Your task to perform on an android device: Turn off the flashlight Image 0: 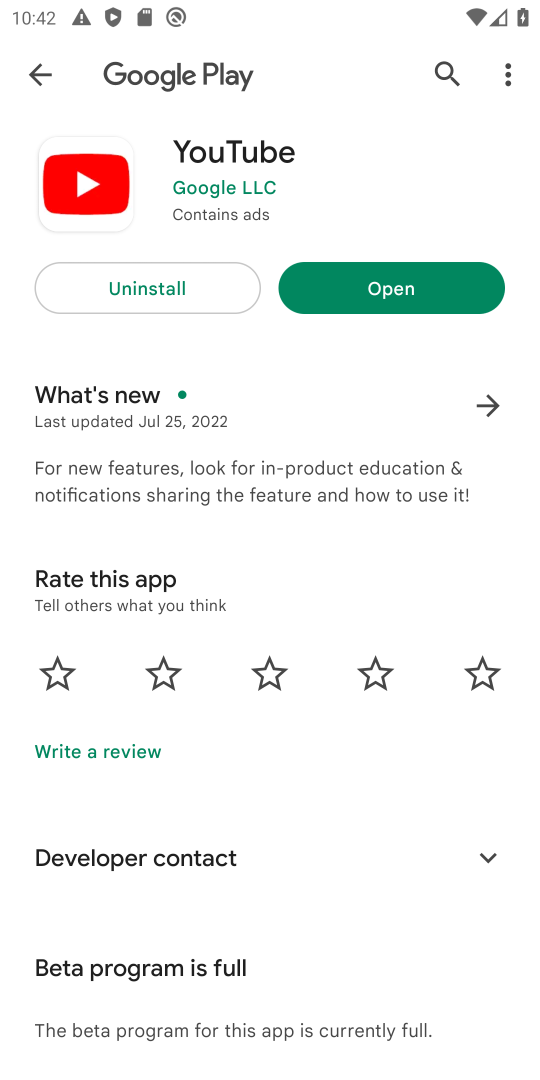
Step 0: press home button
Your task to perform on an android device: Turn off the flashlight Image 1: 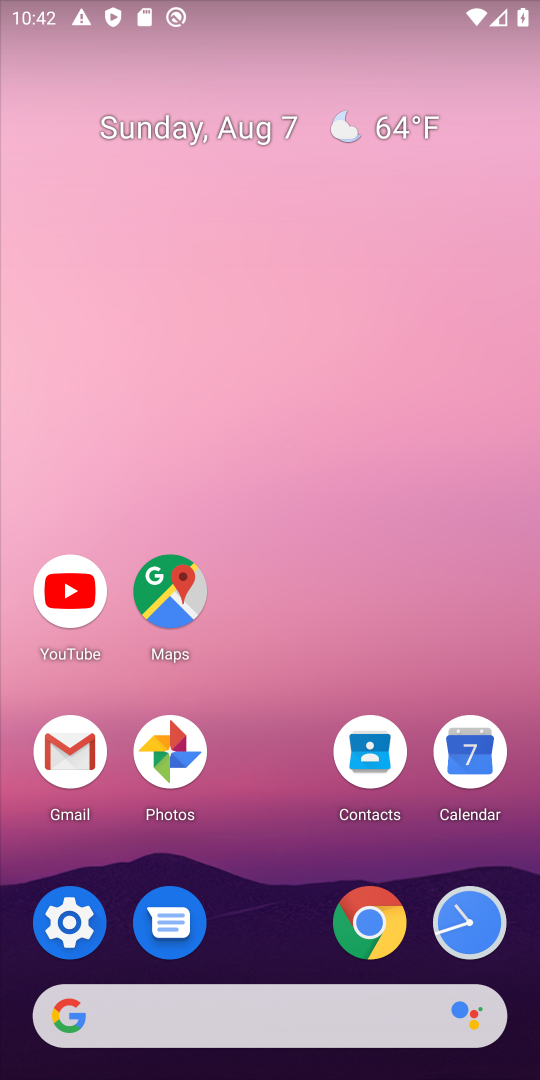
Step 1: click (72, 920)
Your task to perform on an android device: Turn off the flashlight Image 2: 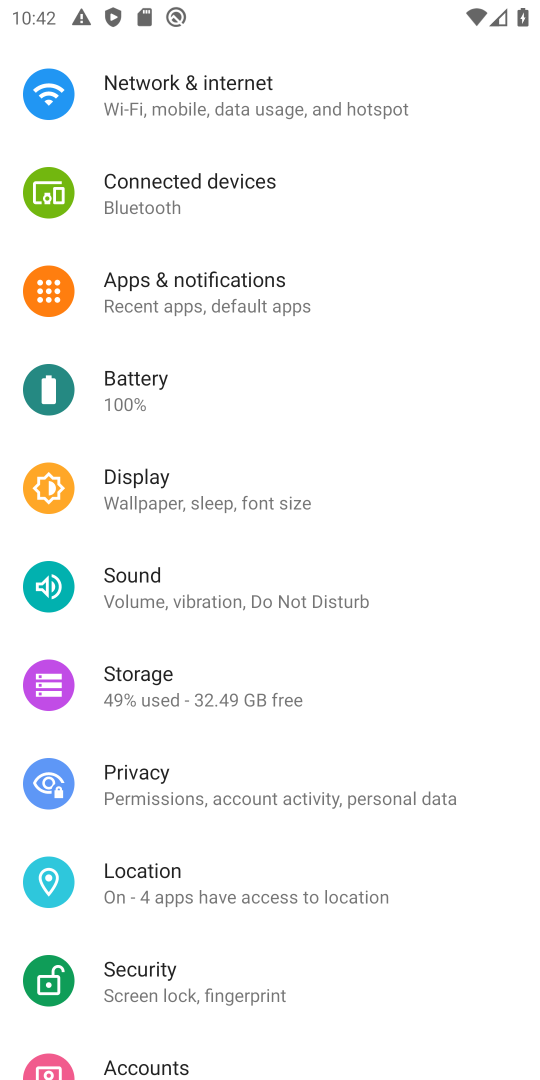
Step 2: click (142, 491)
Your task to perform on an android device: Turn off the flashlight Image 3: 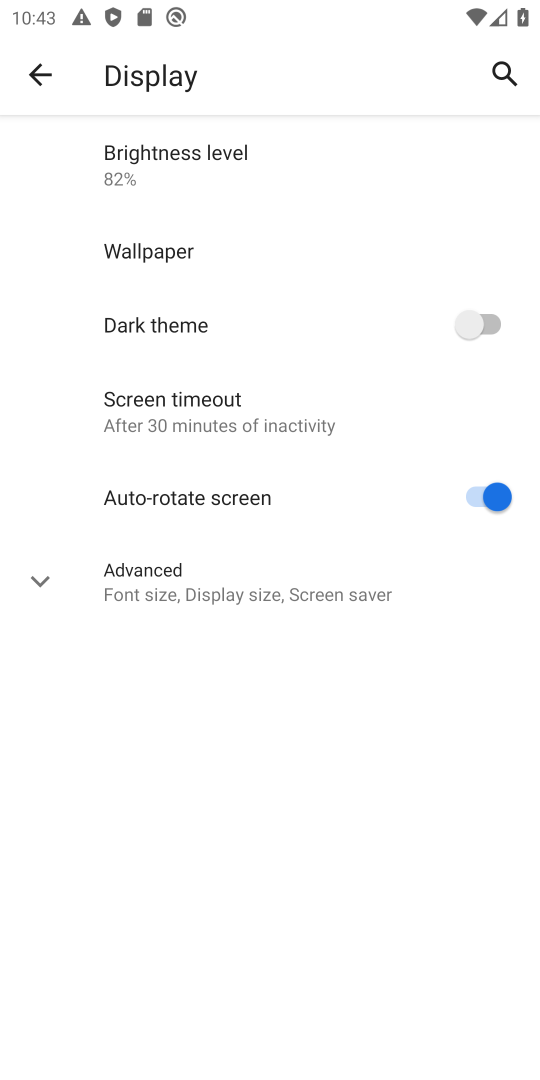
Step 3: task complete